Your task to perform on an android device: turn off location history Image 0: 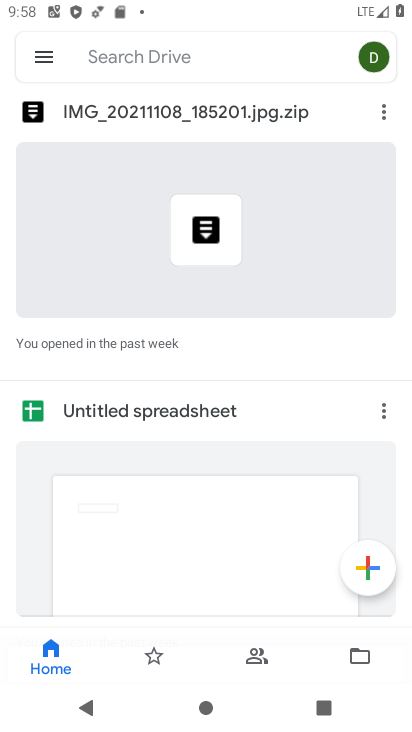
Step 0: press back button
Your task to perform on an android device: turn off location history Image 1: 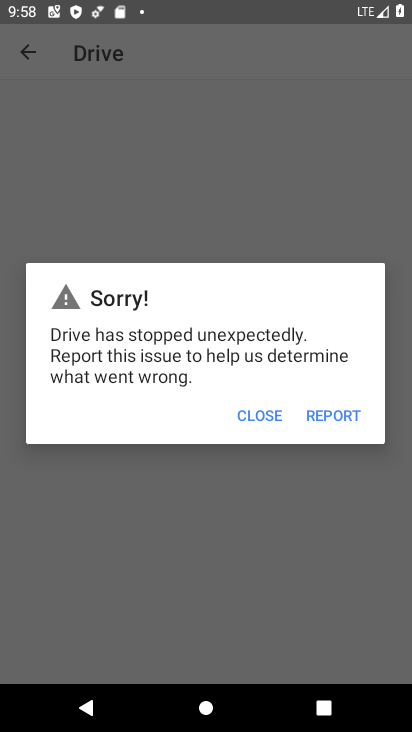
Step 1: press back button
Your task to perform on an android device: turn off location history Image 2: 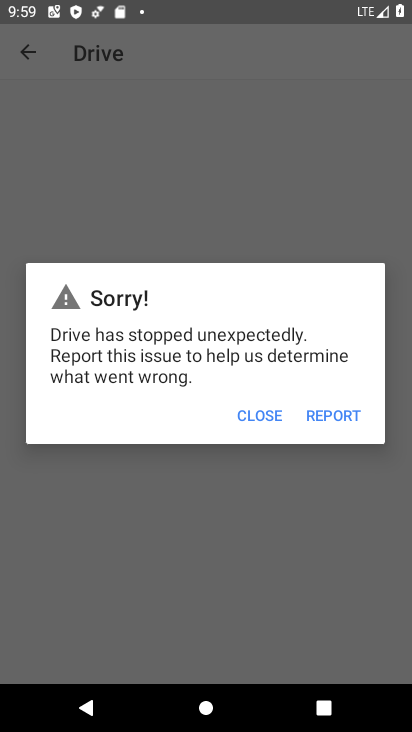
Step 2: press home button
Your task to perform on an android device: turn off location history Image 3: 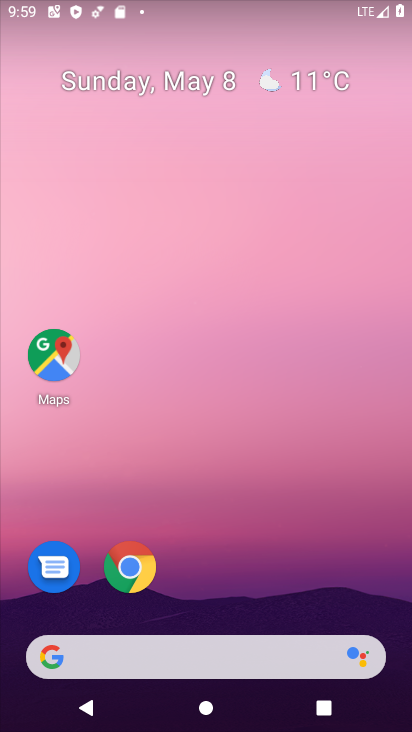
Step 3: drag from (205, 600) to (276, 117)
Your task to perform on an android device: turn off location history Image 4: 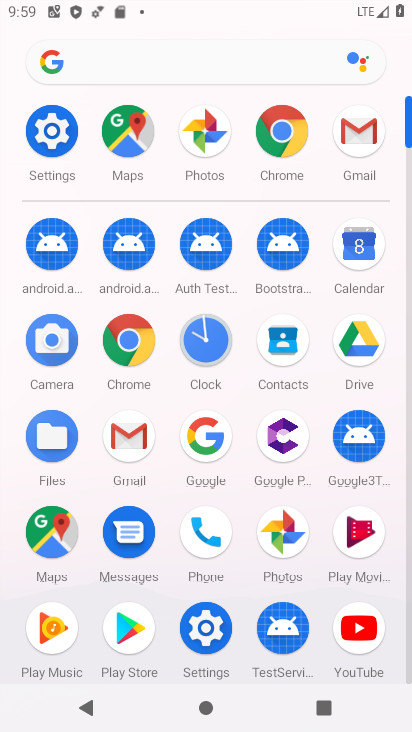
Step 4: click (43, 125)
Your task to perform on an android device: turn off location history Image 5: 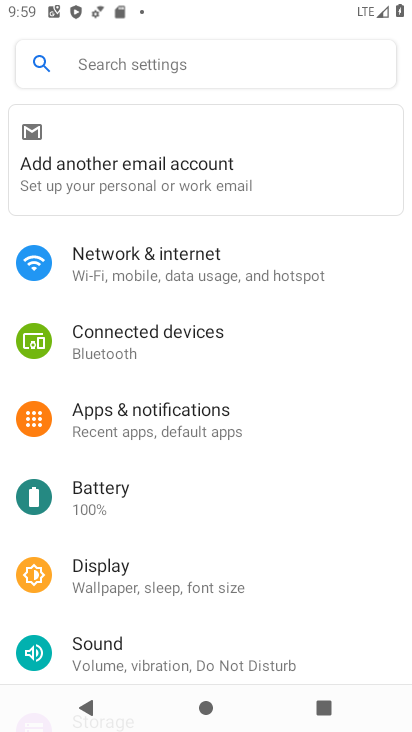
Step 5: drag from (194, 639) to (293, 40)
Your task to perform on an android device: turn off location history Image 6: 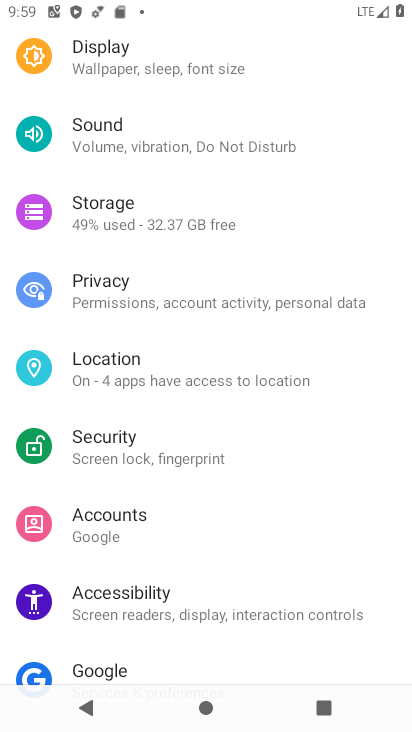
Step 6: click (147, 373)
Your task to perform on an android device: turn off location history Image 7: 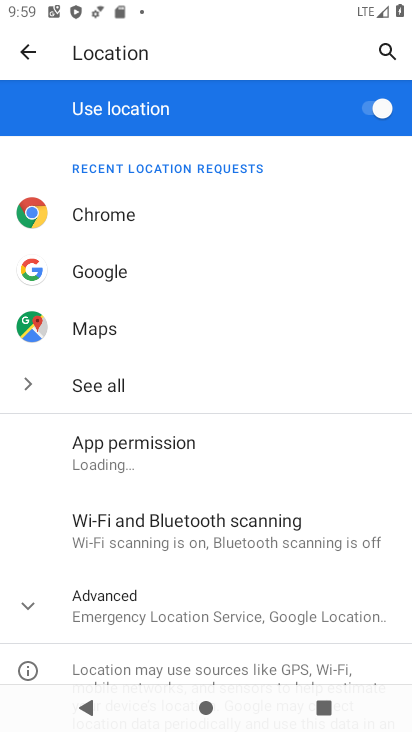
Step 7: click (150, 613)
Your task to perform on an android device: turn off location history Image 8: 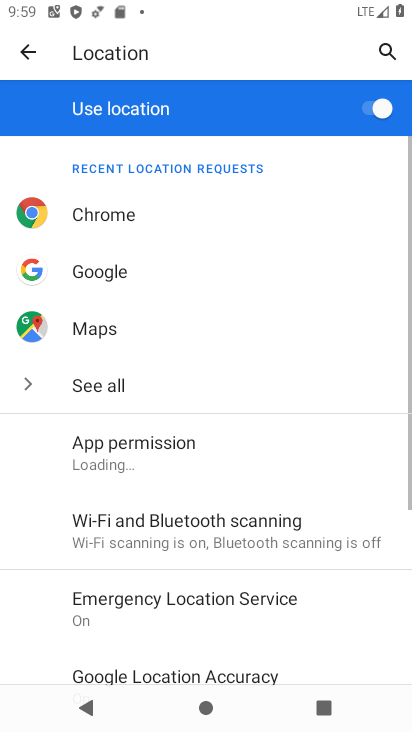
Step 8: drag from (185, 608) to (293, 176)
Your task to perform on an android device: turn off location history Image 9: 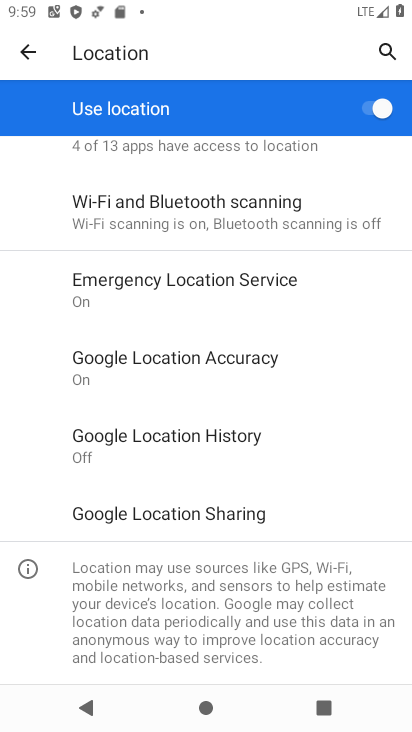
Step 9: click (156, 440)
Your task to perform on an android device: turn off location history Image 10: 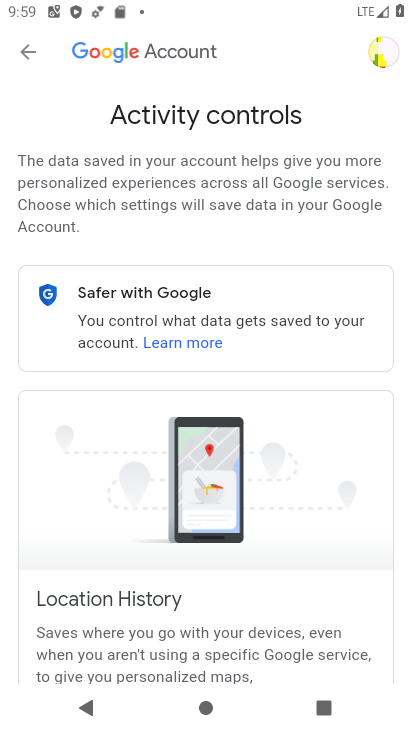
Step 10: drag from (247, 612) to (301, 73)
Your task to perform on an android device: turn off location history Image 11: 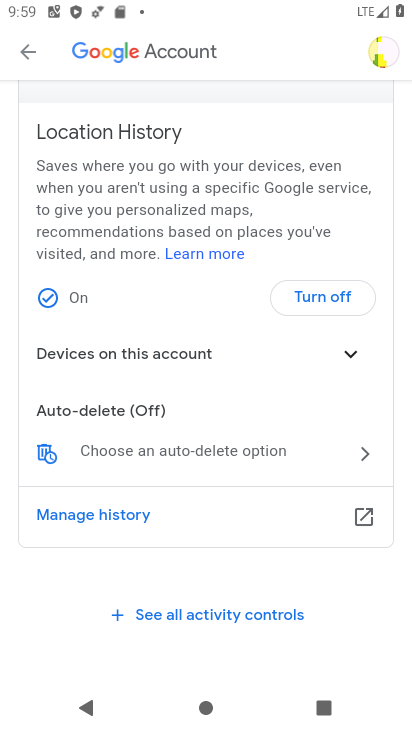
Step 11: click (302, 300)
Your task to perform on an android device: turn off location history Image 12: 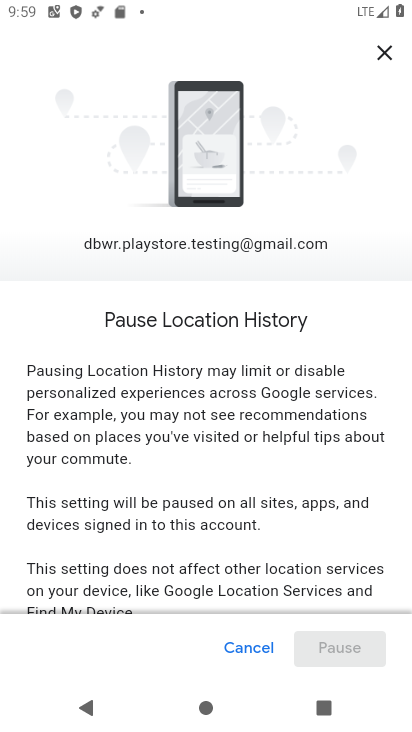
Step 12: drag from (238, 557) to (339, 35)
Your task to perform on an android device: turn off location history Image 13: 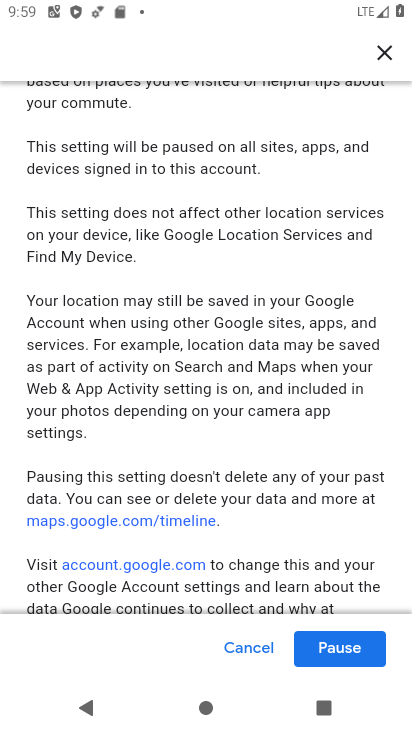
Step 13: drag from (251, 569) to (302, 164)
Your task to perform on an android device: turn off location history Image 14: 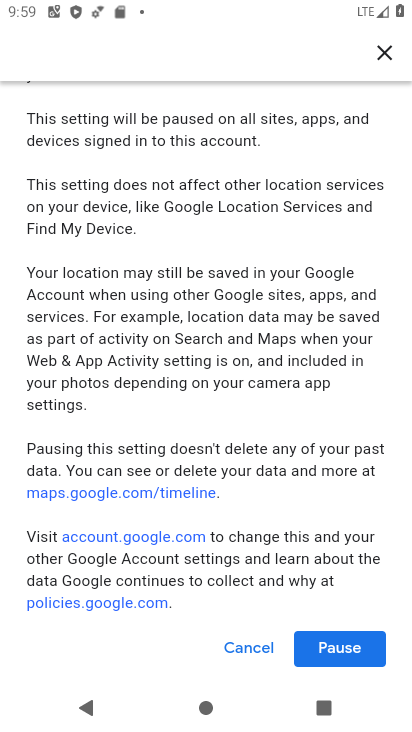
Step 14: click (337, 646)
Your task to perform on an android device: turn off location history Image 15: 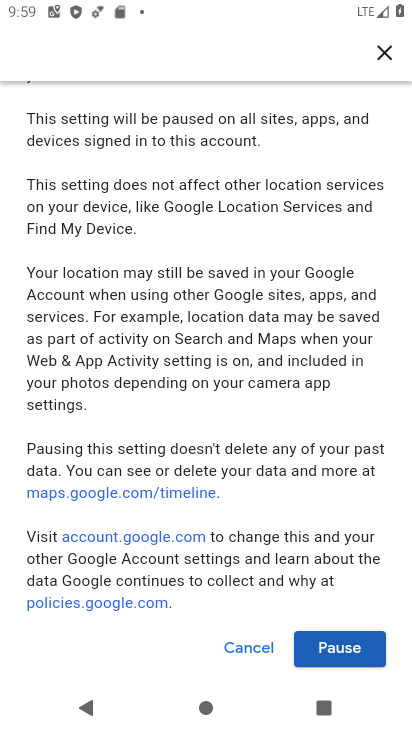
Step 15: click (336, 648)
Your task to perform on an android device: turn off location history Image 16: 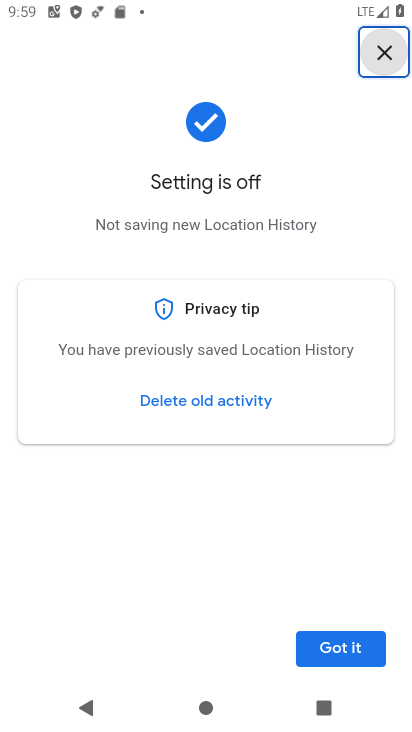
Step 16: click (389, 46)
Your task to perform on an android device: turn off location history Image 17: 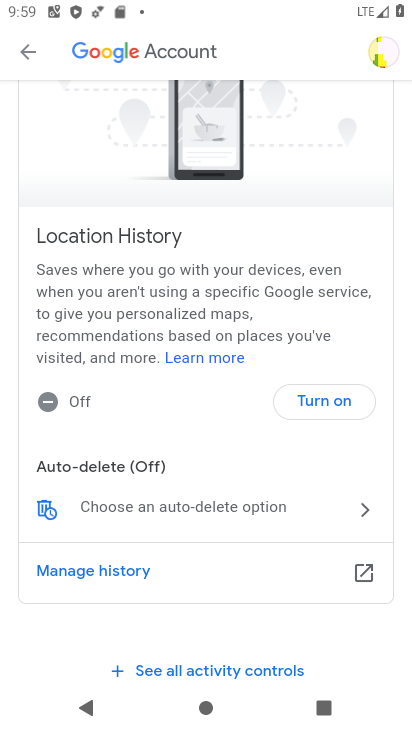
Step 17: task complete